Your task to perform on an android device: See recent photos Image 0: 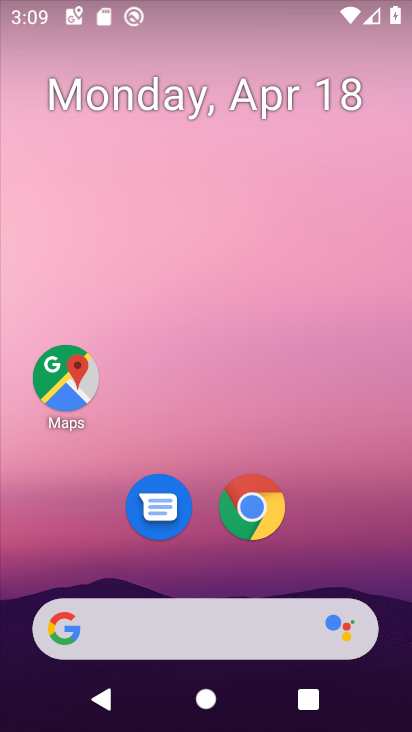
Step 0: drag from (222, 378) to (253, 47)
Your task to perform on an android device: See recent photos Image 1: 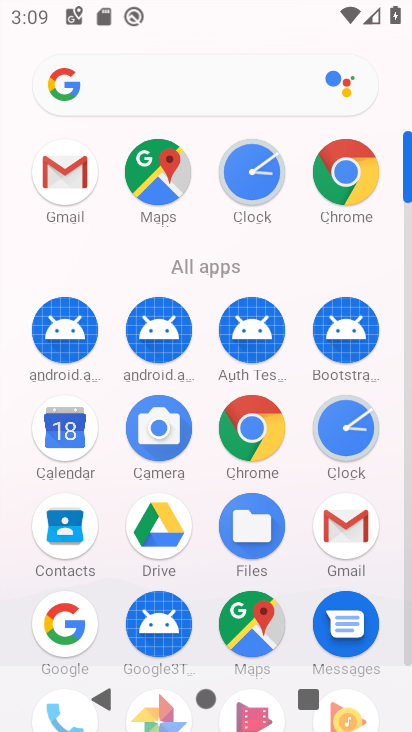
Step 1: click (253, 47)
Your task to perform on an android device: See recent photos Image 2: 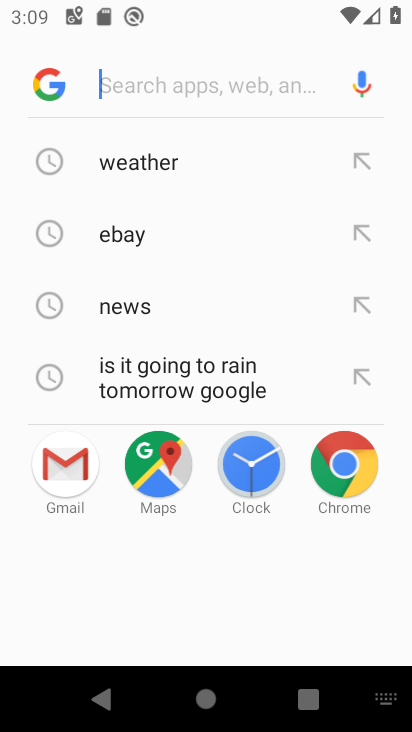
Step 2: press home button
Your task to perform on an android device: See recent photos Image 3: 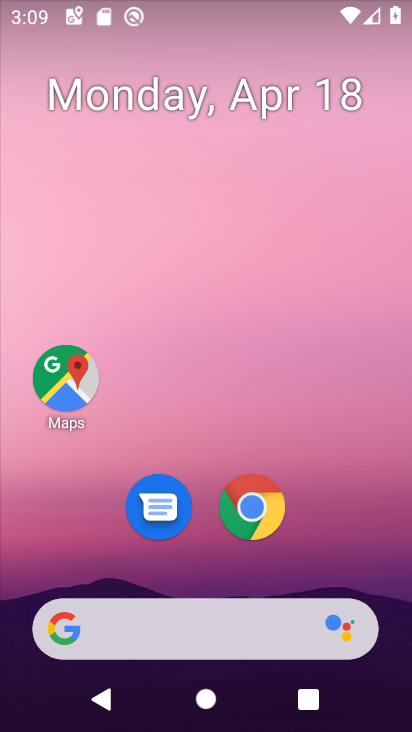
Step 3: drag from (190, 473) to (223, 4)
Your task to perform on an android device: See recent photos Image 4: 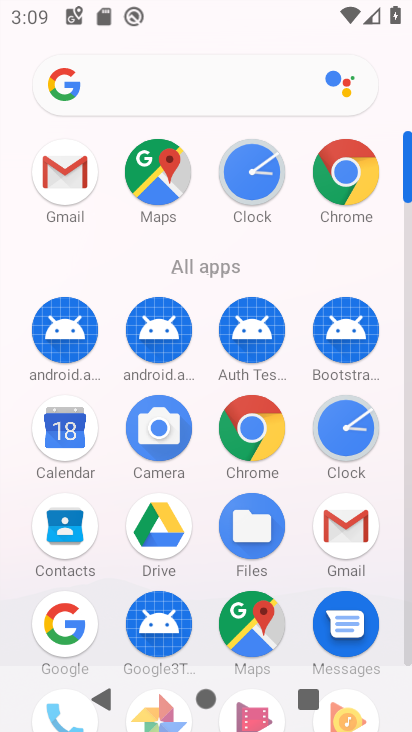
Step 4: drag from (200, 595) to (215, 335)
Your task to perform on an android device: See recent photos Image 5: 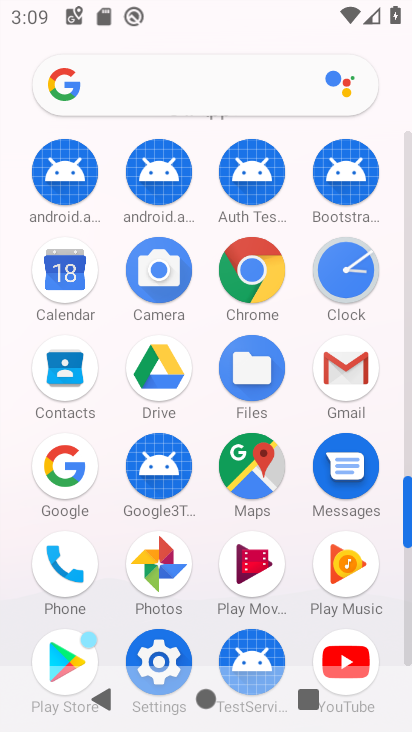
Step 5: click (155, 584)
Your task to perform on an android device: See recent photos Image 6: 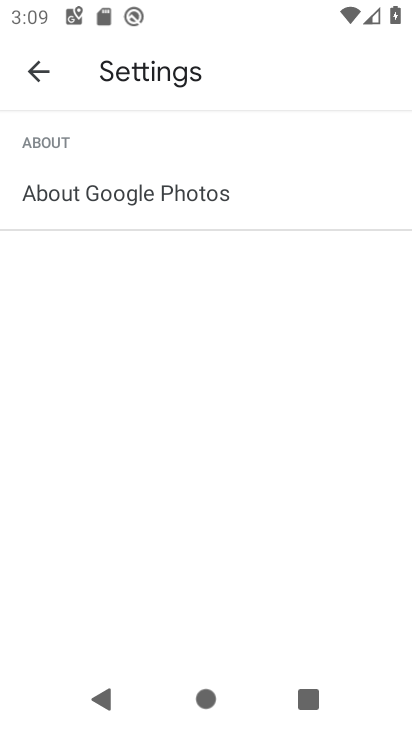
Step 6: click (35, 58)
Your task to perform on an android device: See recent photos Image 7: 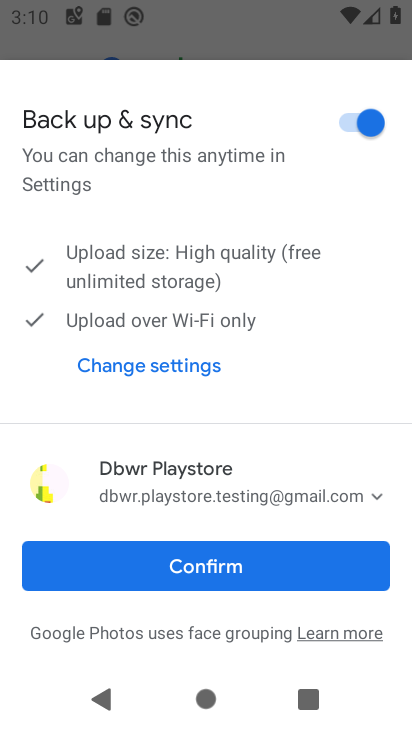
Step 7: click (186, 566)
Your task to perform on an android device: See recent photos Image 8: 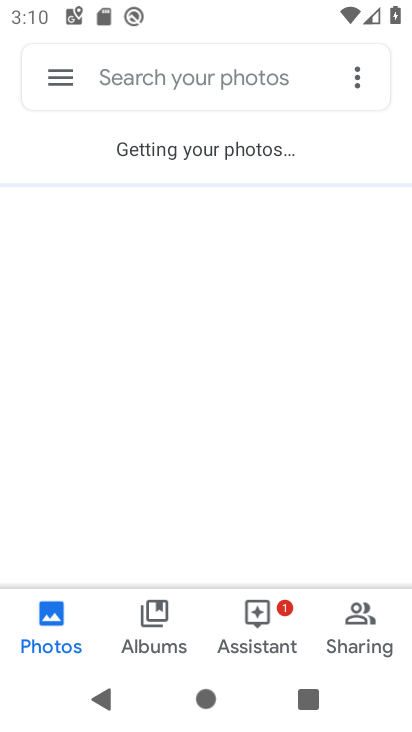
Step 8: click (63, 85)
Your task to perform on an android device: See recent photos Image 9: 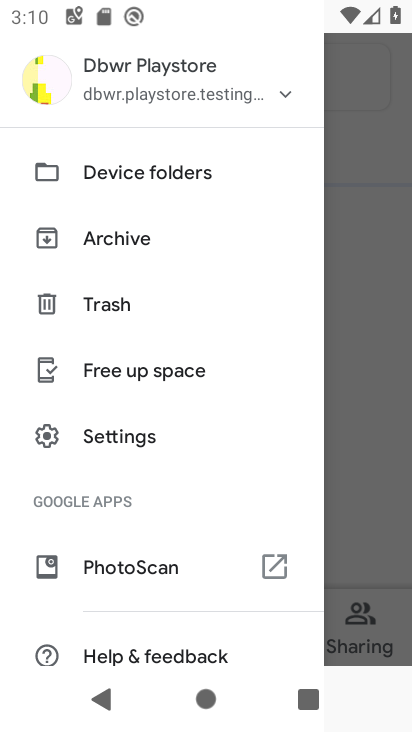
Step 9: click (144, 549)
Your task to perform on an android device: See recent photos Image 10: 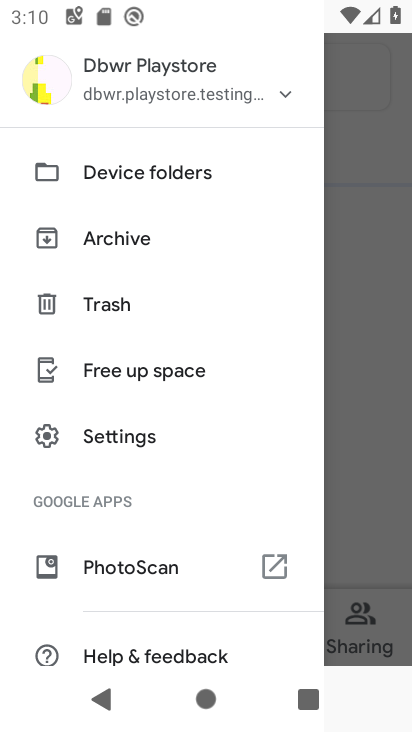
Step 10: click (384, 292)
Your task to perform on an android device: See recent photos Image 11: 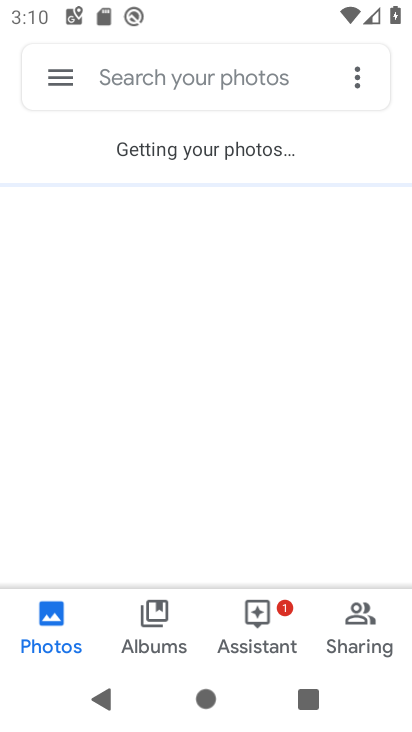
Step 11: task complete